Your task to perform on an android device: Open Amazon Image 0: 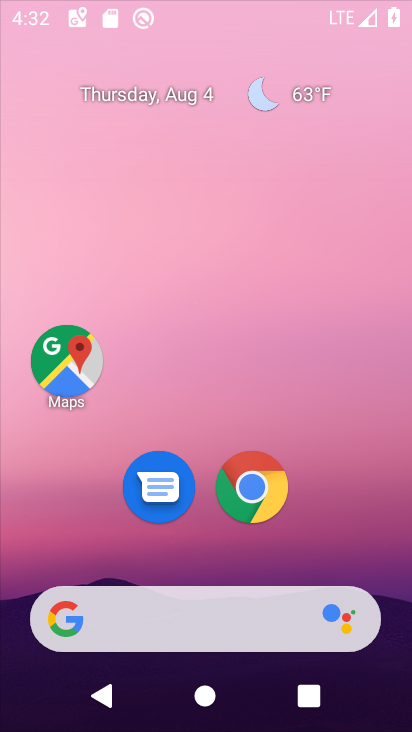
Step 0: click (399, 516)
Your task to perform on an android device: Open Amazon Image 1: 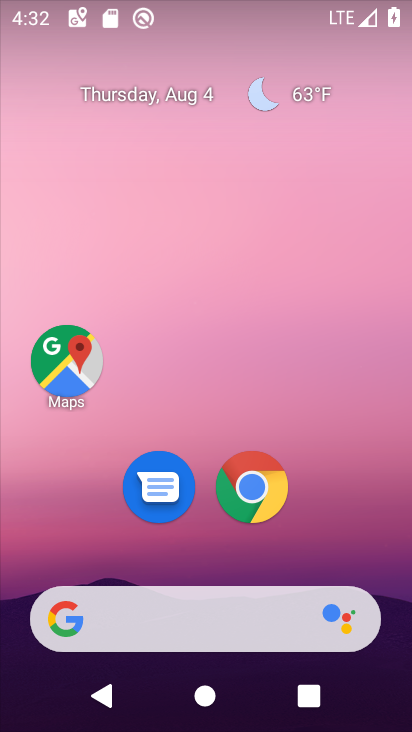
Step 1: drag from (269, 556) to (314, 49)
Your task to perform on an android device: Open Amazon Image 2: 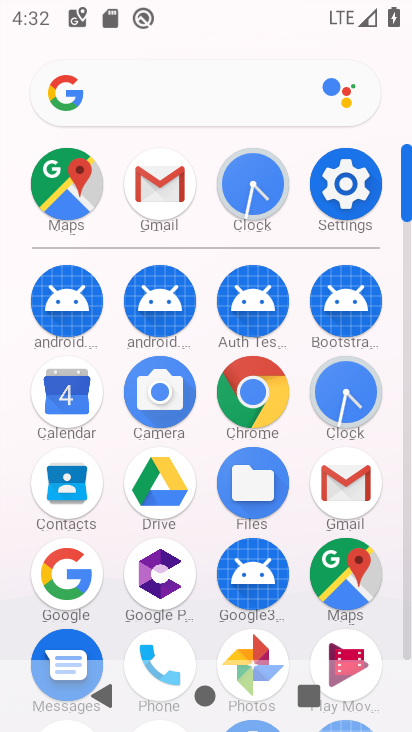
Step 2: click (262, 413)
Your task to perform on an android device: Open Amazon Image 3: 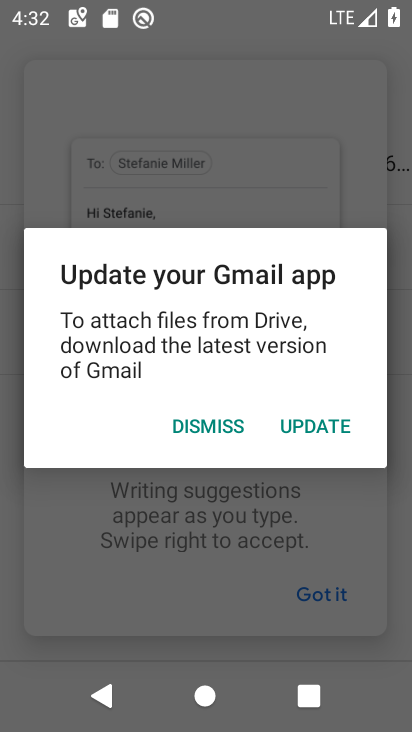
Step 3: click (214, 422)
Your task to perform on an android device: Open Amazon Image 4: 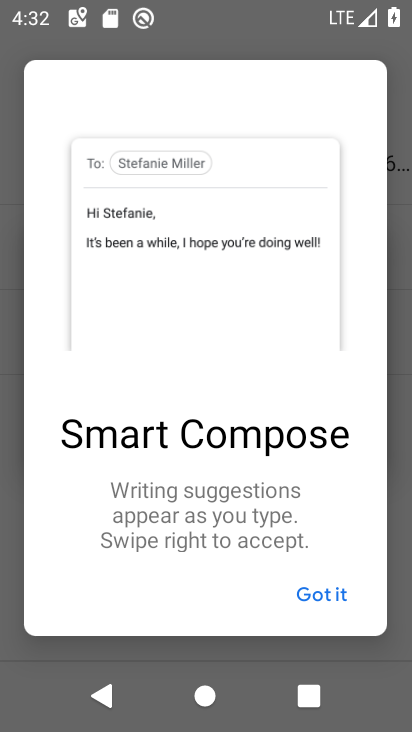
Step 4: click (313, 613)
Your task to perform on an android device: Open Amazon Image 5: 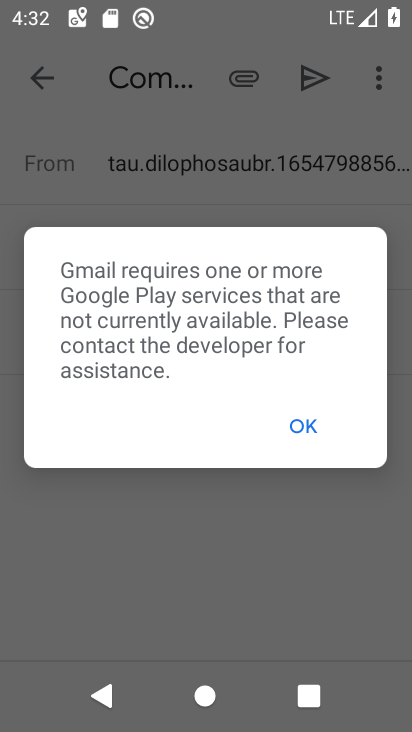
Step 5: click (291, 426)
Your task to perform on an android device: Open Amazon Image 6: 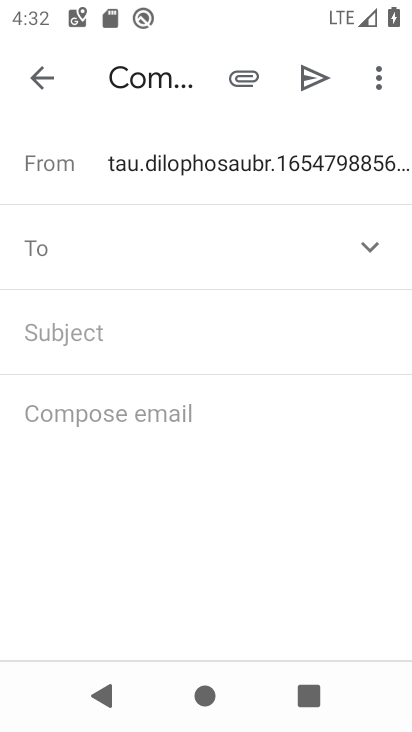
Step 6: press back button
Your task to perform on an android device: Open Amazon Image 7: 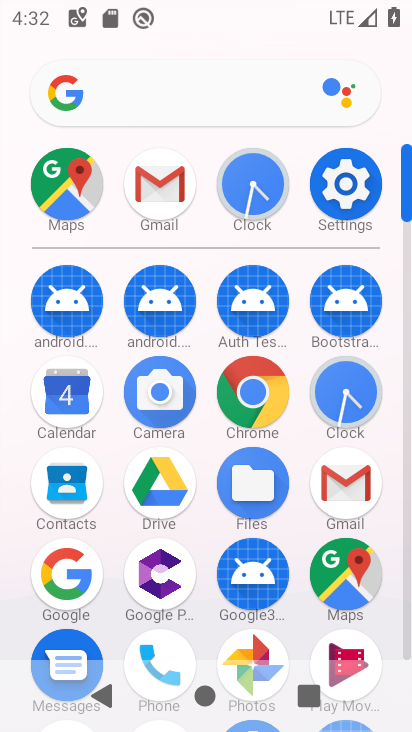
Step 7: click (231, 407)
Your task to perform on an android device: Open Amazon Image 8: 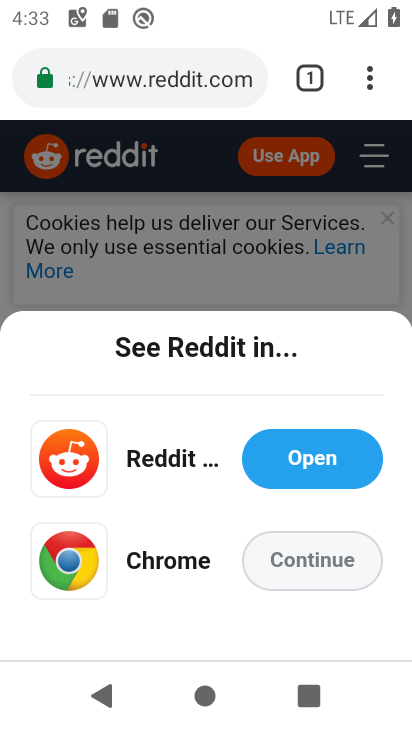
Step 8: click (318, 71)
Your task to perform on an android device: Open Amazon Image 9: 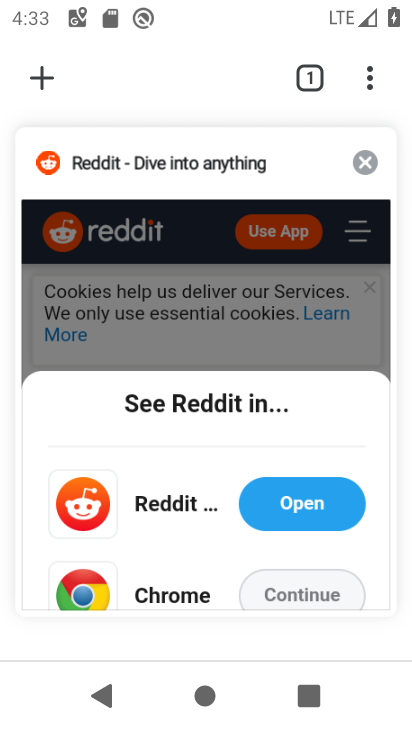
Step 9: click (45, 67)
Your task to perform on an android device: Open Amazon Image 10: 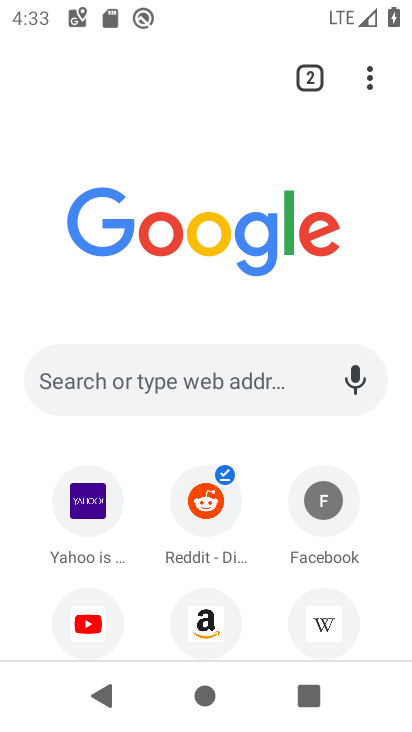
Step 10: click (219, 613)
Your task to perform on an android device: Open Amazon Image 11: 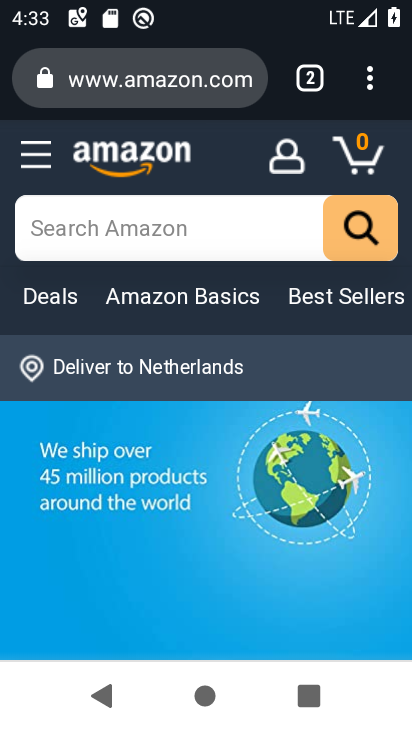
Step 11: task complete